Your task to perform on an android device: turn on sleep mode Image 0: 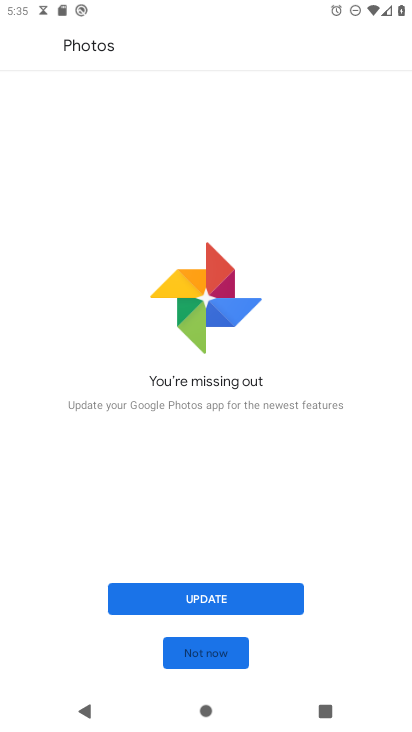
Step 0: press home button
Your task to perform on an android device: turn on sleep mode Image 1: 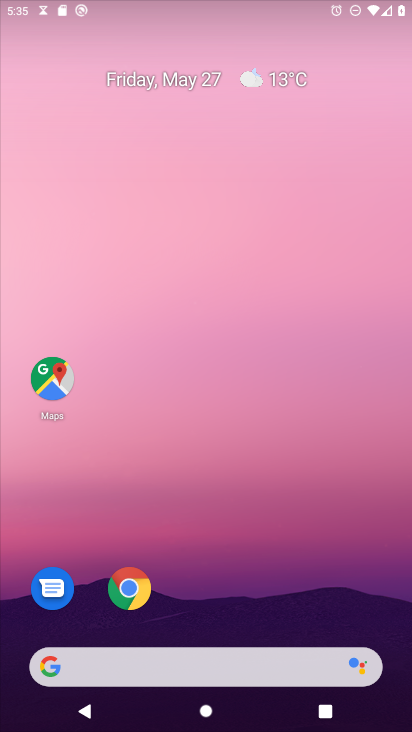
Step 1: drag from (169, 565) to (259, 47)
Your task to perform on an android device: turn on sleep mode Image 2: 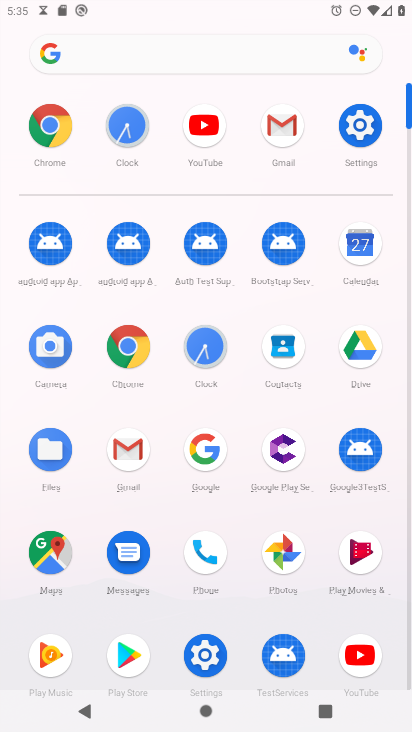
Step 2: click (361, 119)
Your task to perform on an android device: turn on sleep mode Image 3: 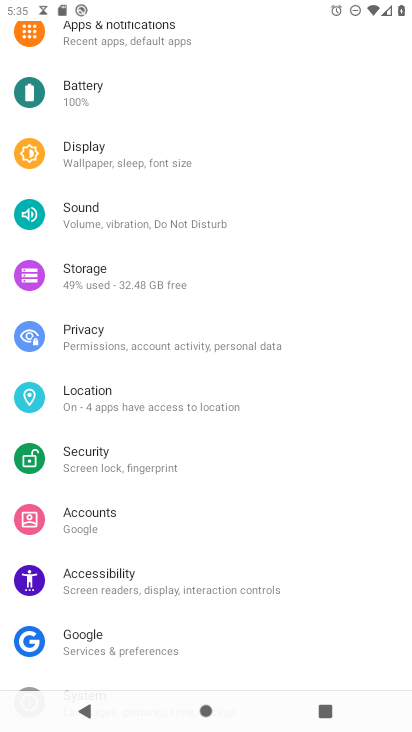
Step 3: drag from (156, 91) to (154, 619)
Your task to perform on an android device: turn on sleep mode Image 4: 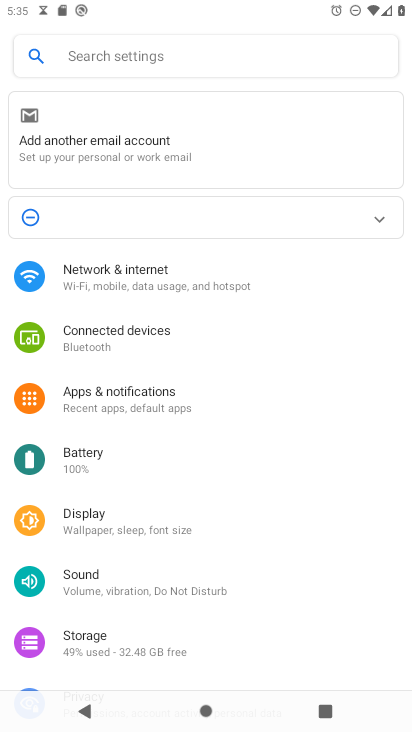
Step 4: click (117, 61)
Your task to perform on an android device: turn on sleep mode Image 5: 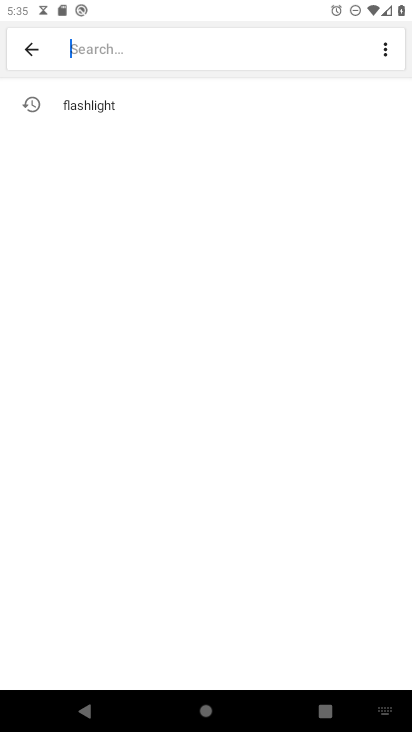
Step 5: type "sleep mode"
Your task to perform on an android device: turn on sleep mode Image 6: 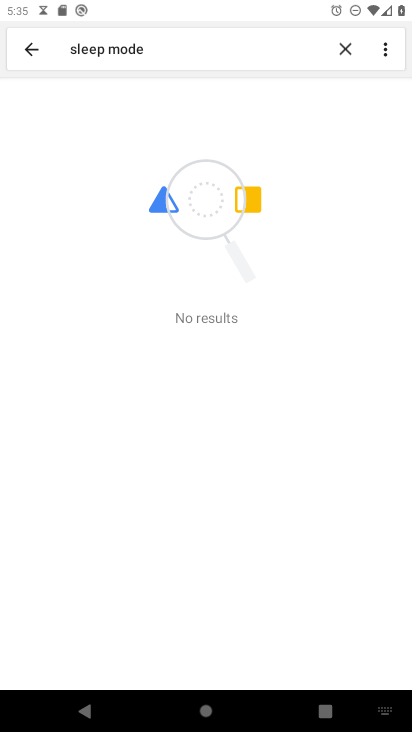
Step 6: task complete